Your task to perform on an android device: turn on bluetooth scan Image 0: 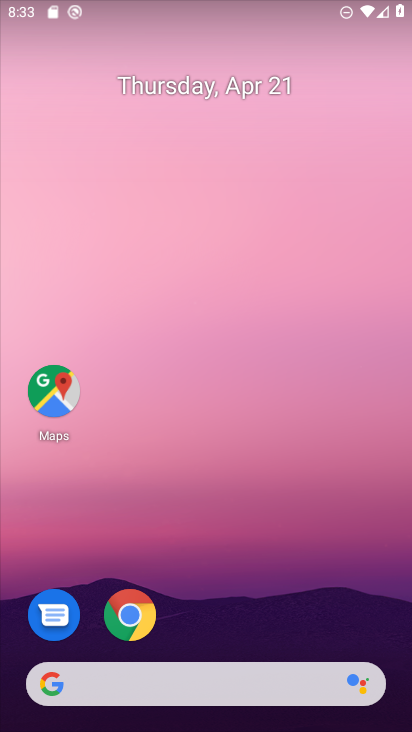
Step 0: drag from (321, 596) to (341, 76)
Your task to perform on an android device: turn on bluetooth scan Image 1: 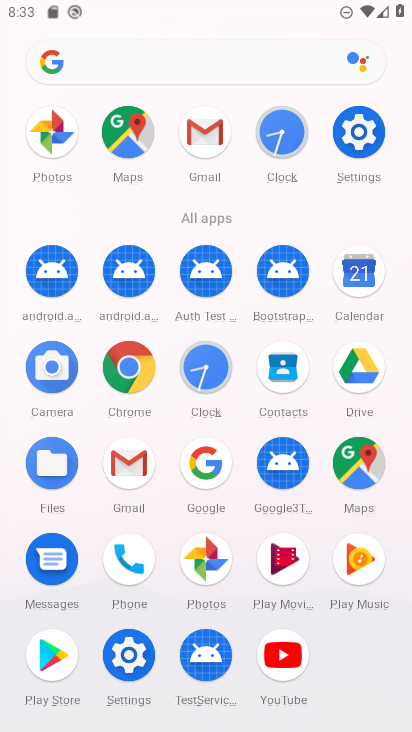
Step 1: click (363, 125)
Your task to perform on an android device: turn on bluetooth scan Image 2: 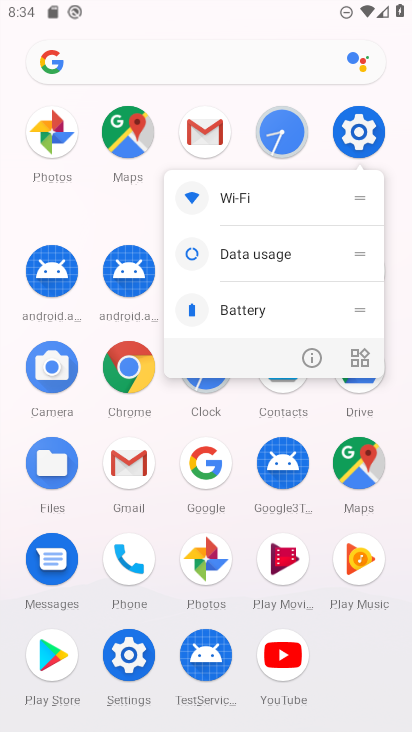
Step 2: click (358, 138)
Your task to perform on an android device: turn on bluetooth scan Image 3: 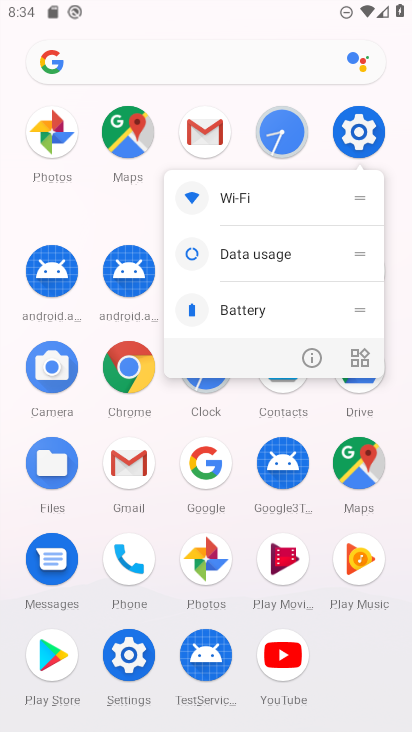
Step 3: click (366, 129)
Your task to perform on an android device: turn on bluetooth scan Image 4: 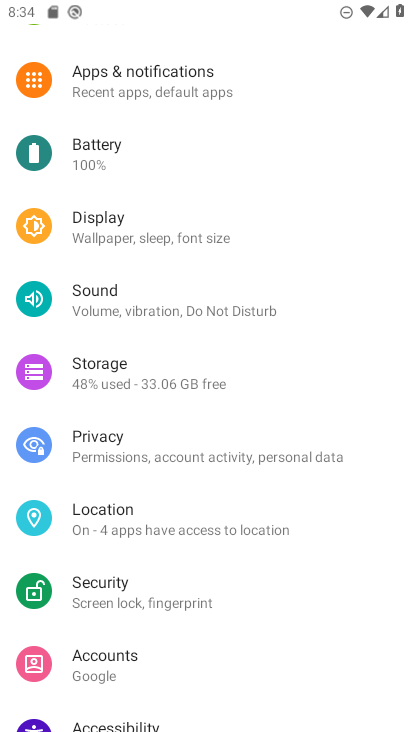
Step 4: click (155, 513)
Your task to perform on an android device: turn on bluetooth scan Image 5: 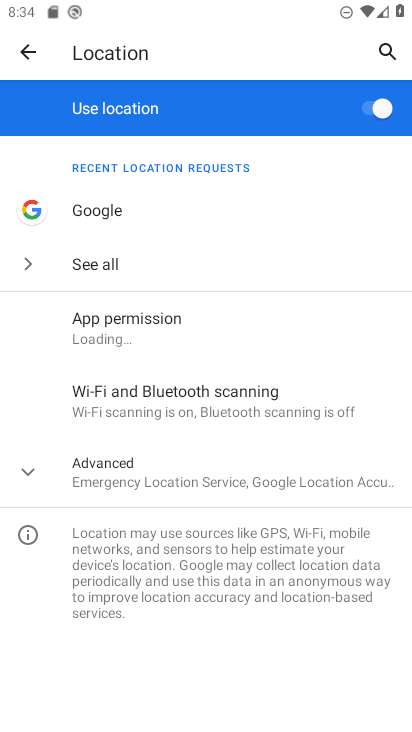
Step 5: click (172, 411)
Your task to perform on an android device: turn on bluetooth scan Image 6: 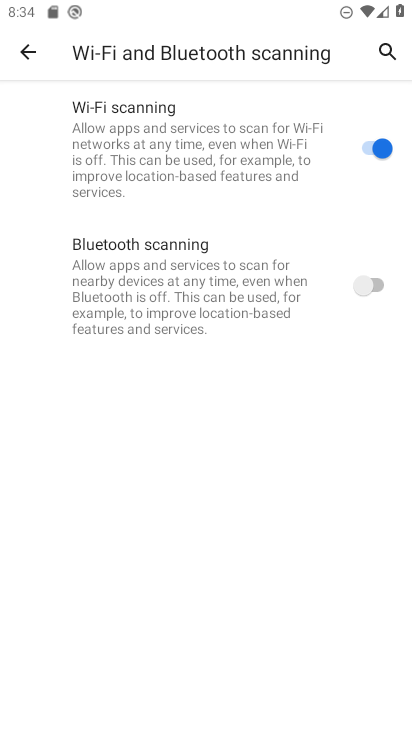
Step 6: click (365, 280)
Your task to perform on an android device: turn on bluetooth scan Image 7: 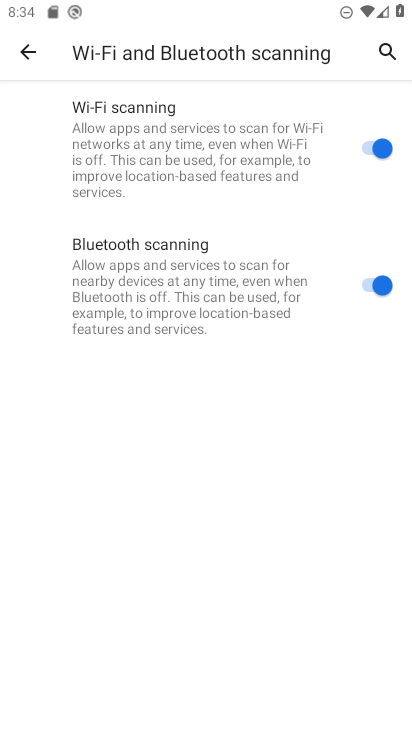
Step 7: task complete